Your task to perform on an android device: Open Google Chrome Image 0: 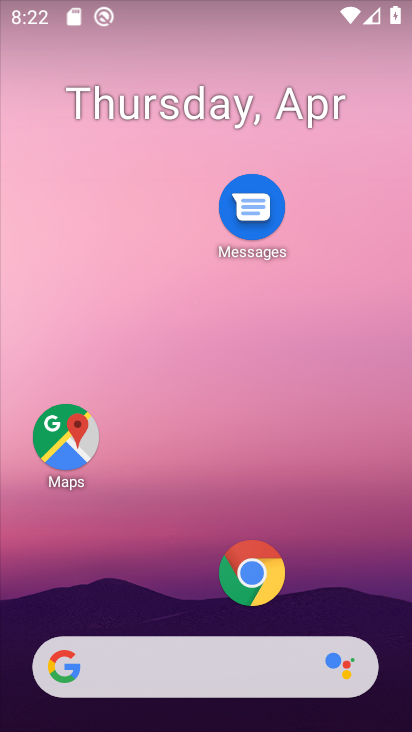
Step 0: click (249, 566)
Your task to perform on an android device: Open Google Chrome Image 1: 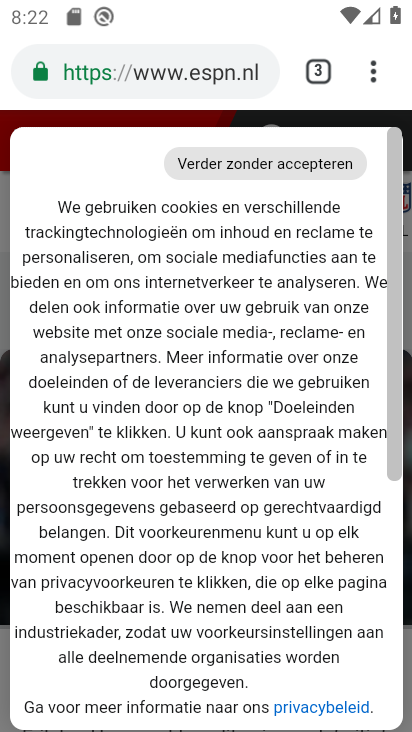
Step 1: drag from (231, 604) to (200, 87)
Your task to perform on an android device: Open Google Chrome Image 2: 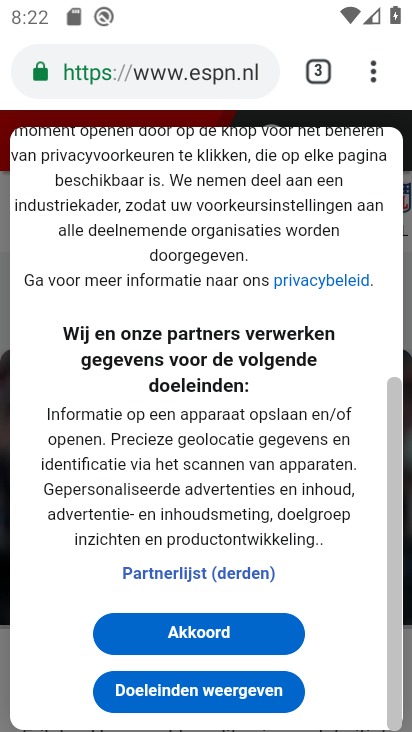
Step 2: click (314, 70)
Your task to perform on an android device: Open Google Chrome Image 3: 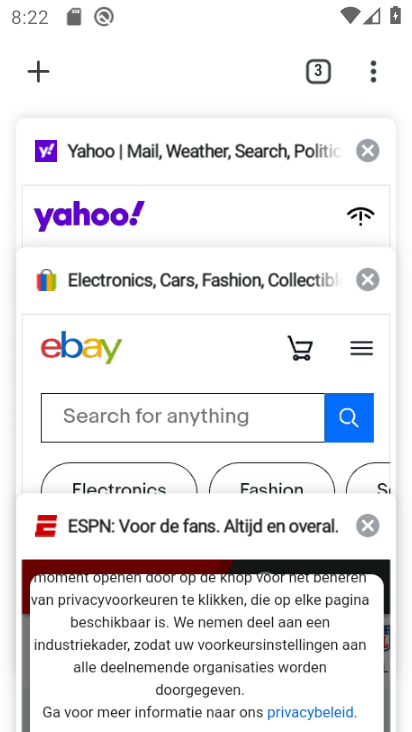
Step 3: click (185, 361)
Your task to perform on an android device: Open Google Chrome Image 4: 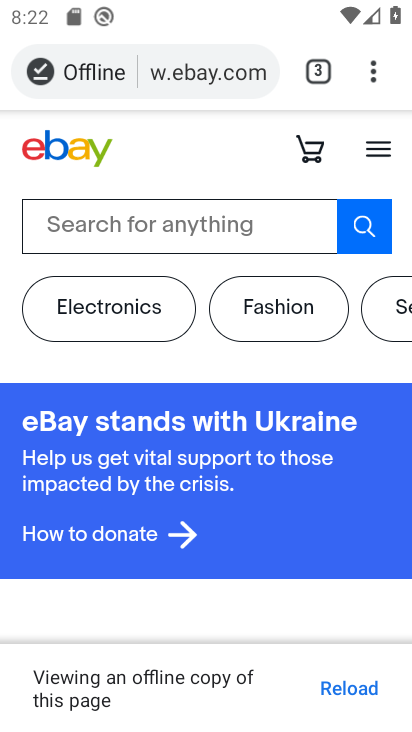
Step 4: task complete